Your task to perform on an android device: star an email in the gmail app Image 0: 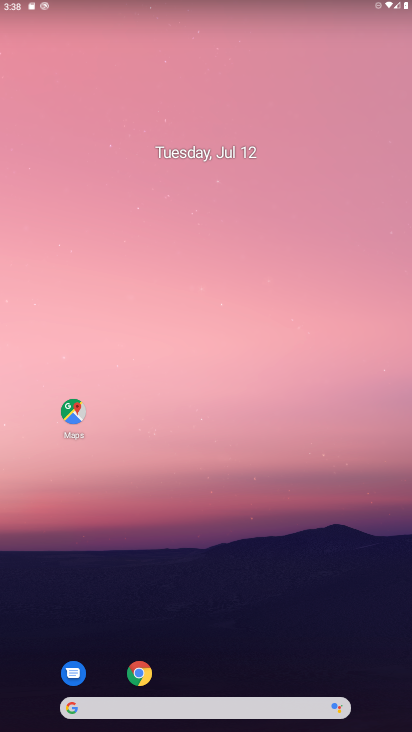
Step 0: drag from (175, 714) to (334, 5)
Your task to perform on an android device: star an email in the gmail app Image 1: 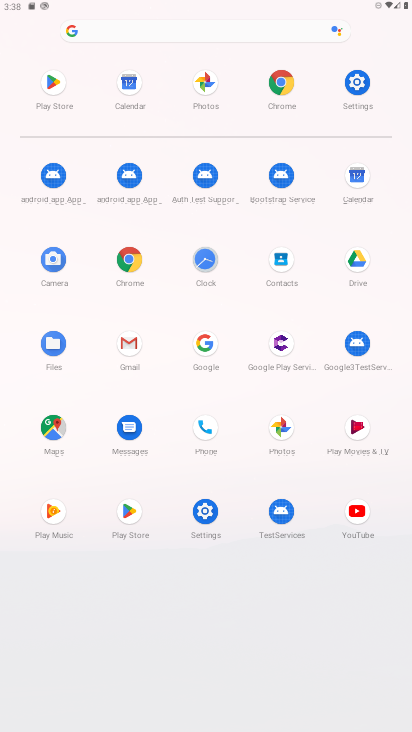
Step 1: click (130, 342)
Your task to perform on an android device: star an email in the gmail app Image 2: 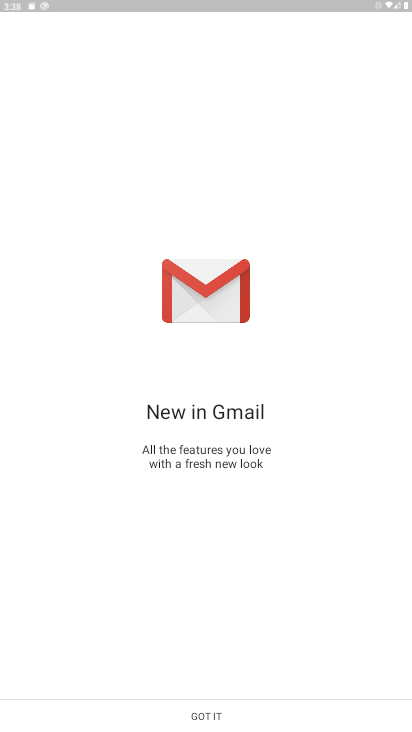
Step 2: click (201, 713)
Your task to perform on an android device: star an email in the gmail app Image 3: 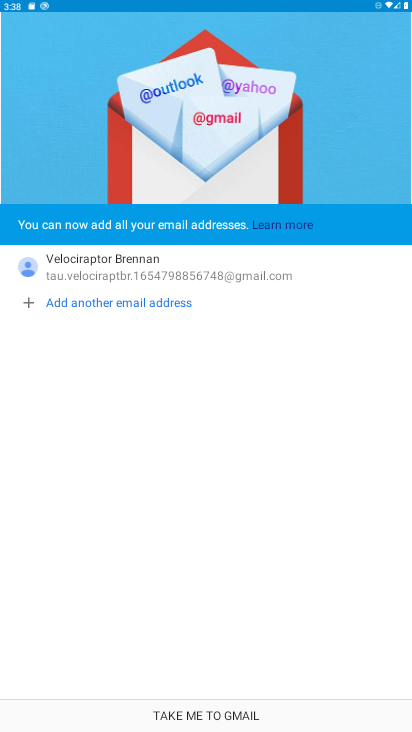
Step 3: click (201, 713)
Your task to perform on an android device: star an email in the gmail app Image 4: 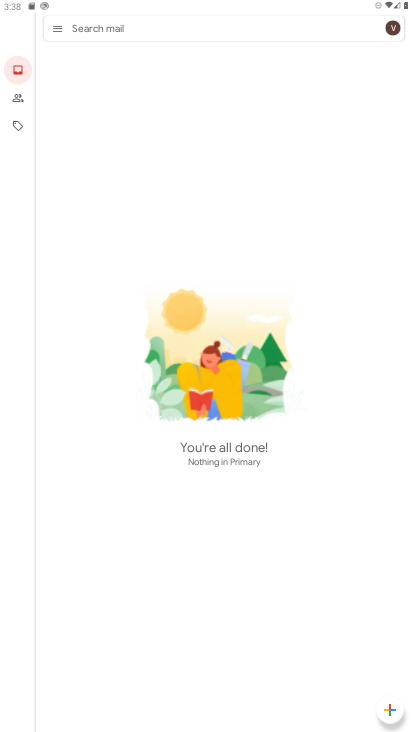
Step 4: click (58, 30)
Your task to perform on an android device: star an email in the gmail app Image 5: 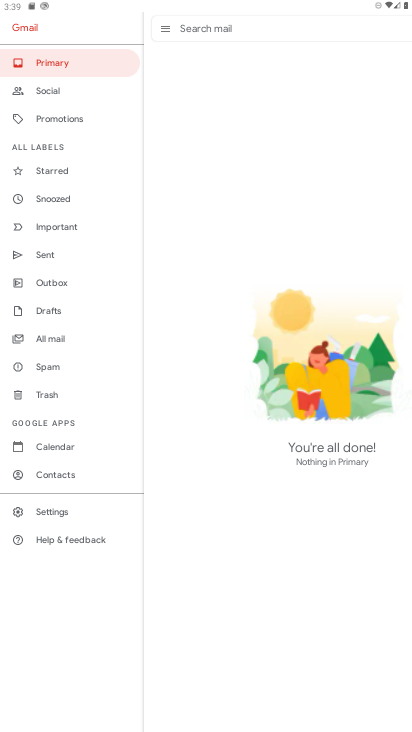
Step 5: click (50, 338)
Your task to perform on an android device: star an email in the gmail app Image 6: 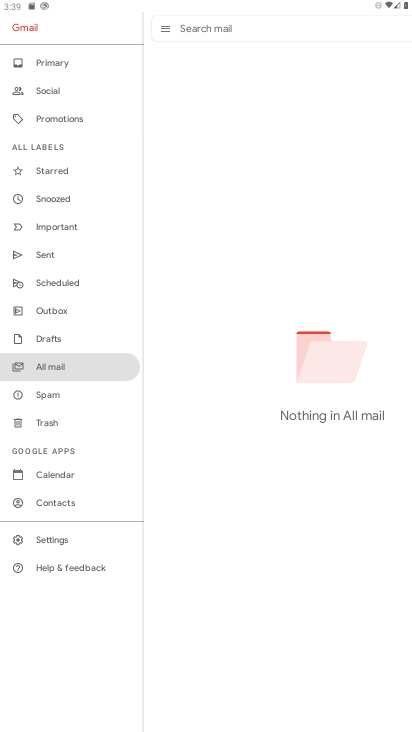
Step 6: click (51, 90)
Your task to perform on an android device: star an email in the gmail app Image 7: 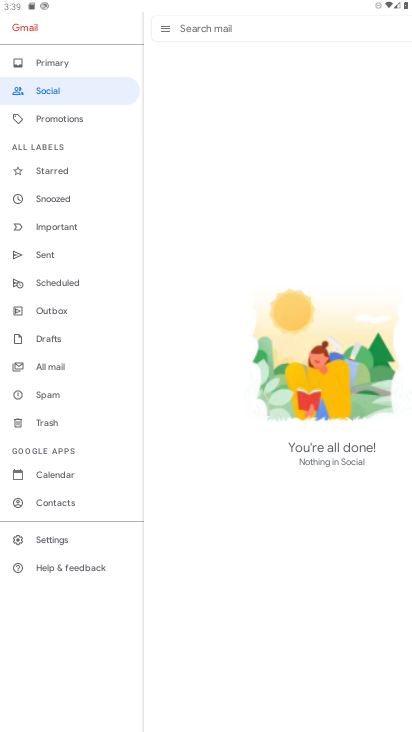
Step 7: click (56, 115)
Your task to perform on an android device: star an email in the gmail app Image 8: 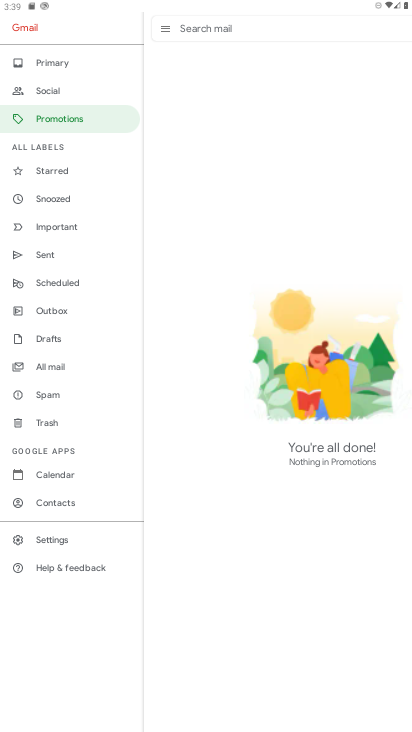
Step 8: click (60, 172)
Your task to perform on an android device: star an email in the gmail app Image 9: 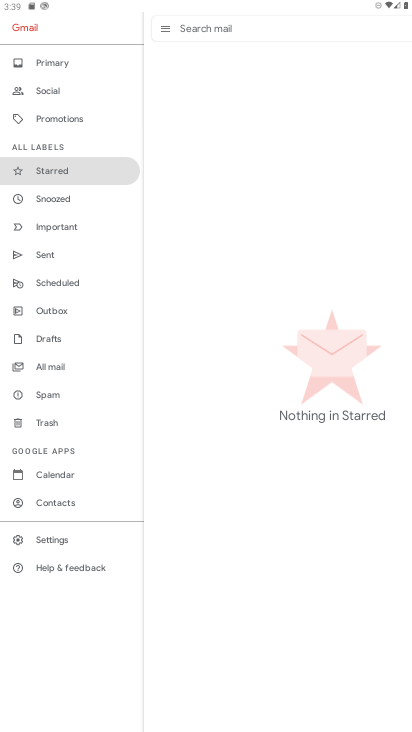
Step 9: click (60, 194)
Your task to perform on an android device: star an email in the gmail app Image 10: 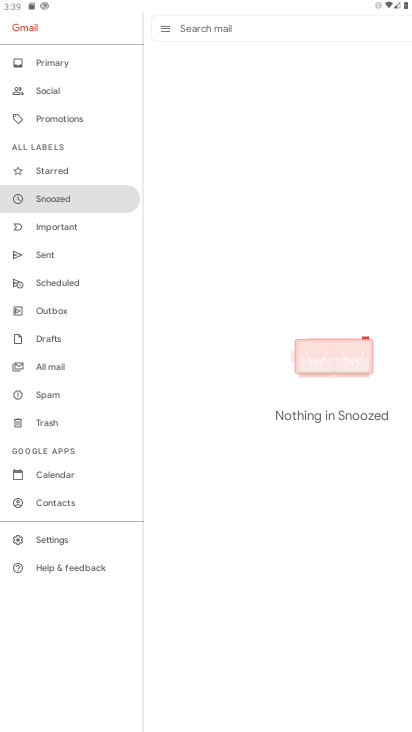
Step 10: click (59, 228)
Your task to perform on an android device: star an email in the gmail app Image 11: 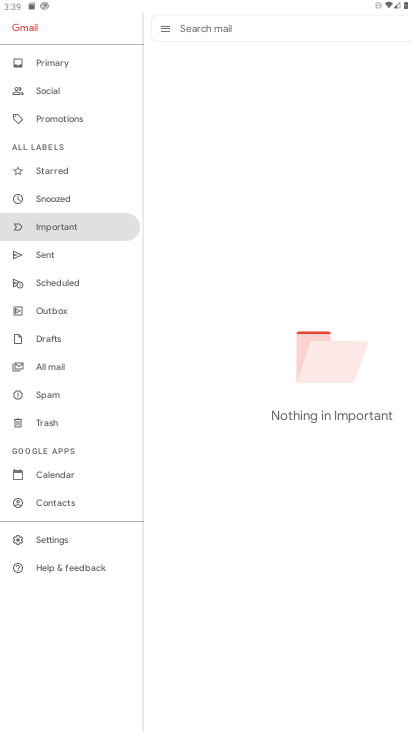
Step 11: click (45, 256)
Your task to perform on an android device: star an email in the gmail app Image 12: 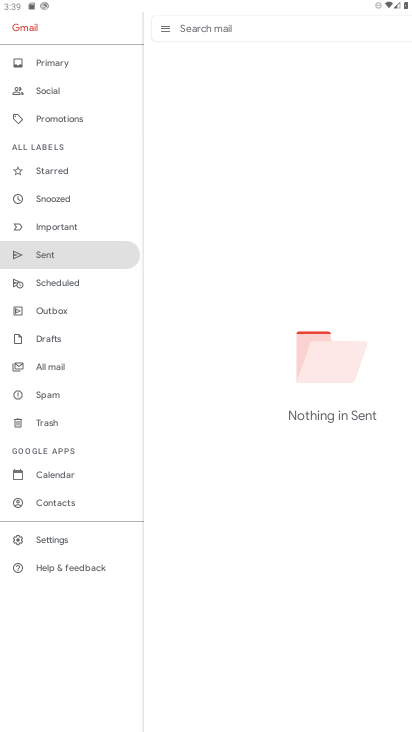
Step 12: click (44, 283)
Your task to perform on an android device: star an email in the gmail app Image 13: 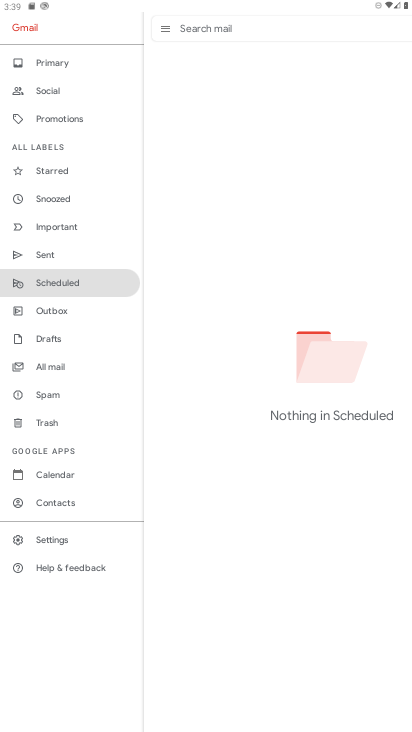
Step 13: click (48, 312)
Your task to perform on an android device: star an email in the gmail app Image 14: 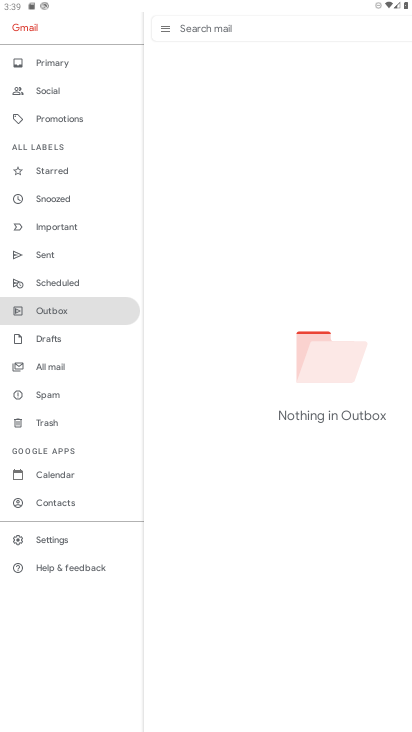
Step 14: click (45, 340)
Your task to perform on an android device: star an email in the gmail app Image 15: 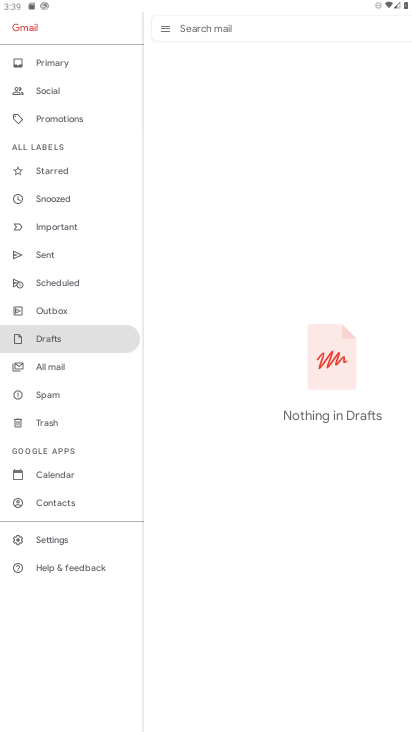
Step 15: click (38, 368)
Your task to perform on an android device: star an email in the gmail app Image 16: 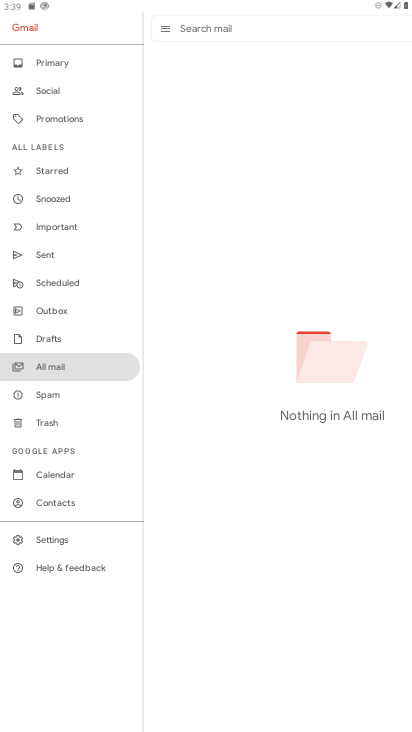
Step 16: click (35, 401)
Your task to perform on an android device: star an email in the gmail app Image 17: 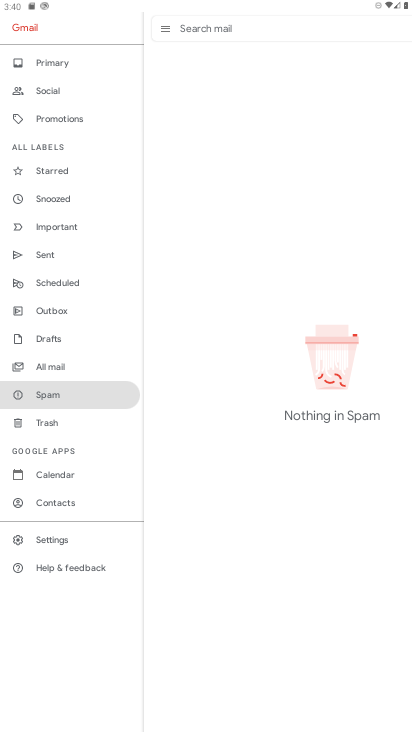
Step 17: click (38, 426)
Your task to perform on an android device: star an email in the gmail app Image 18: 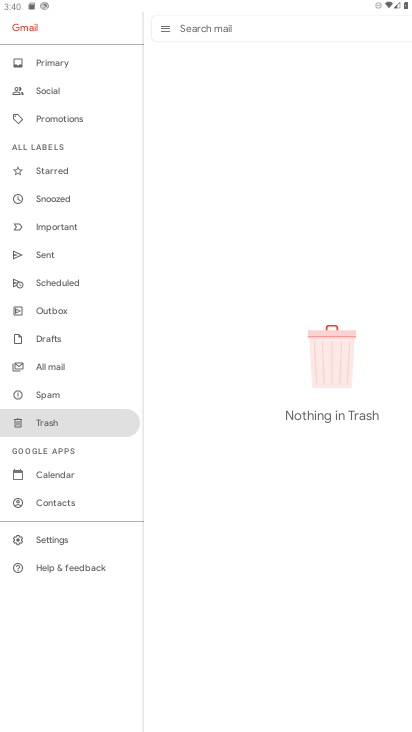
Step 18: task complete